Your task to perform on an android device: Do I have any events today? Image 0: 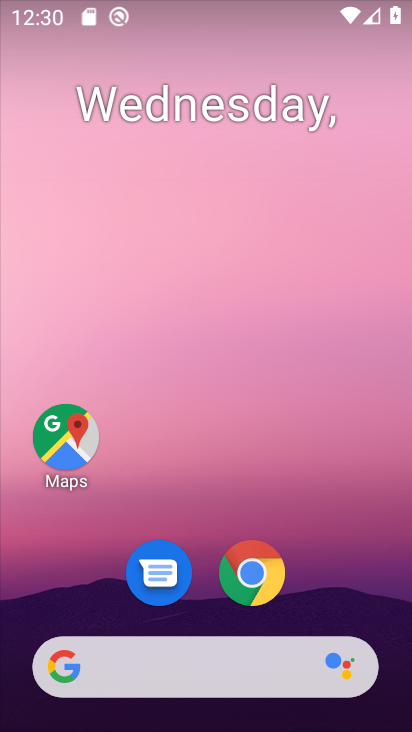
Step 0: drag from (205, 502) to (178, 20)
Your task to perform on an android device: Do I have any events today? Image 1: 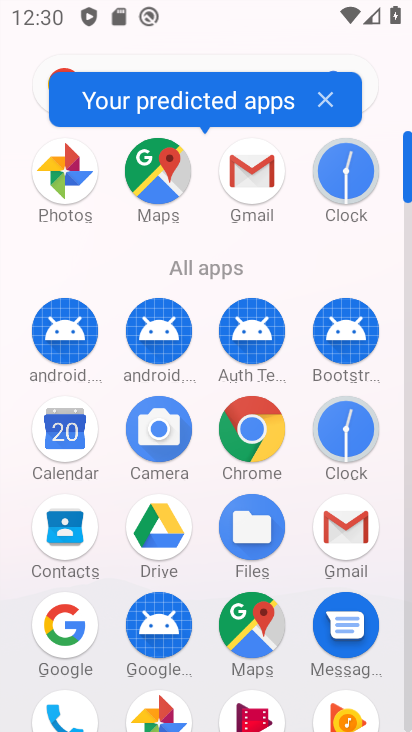
Step 1: drag from (294, 662) to (302, 286)
Your task to perform on an android device: Do I have any events today? Image 2: 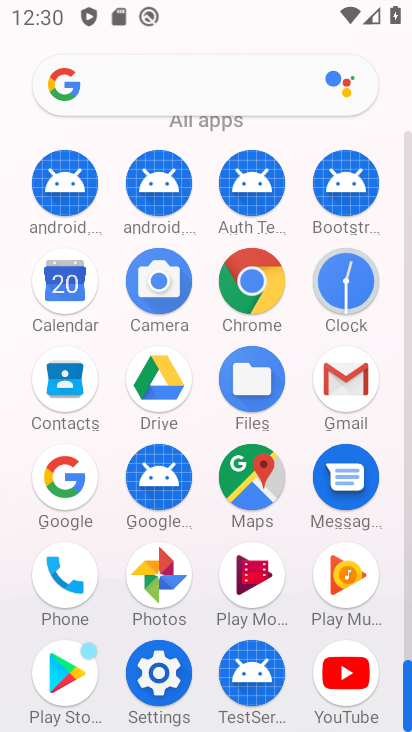
Step 2: click (73, 311)
Your task to perform on an android device: Do I have any events today? Image 3: 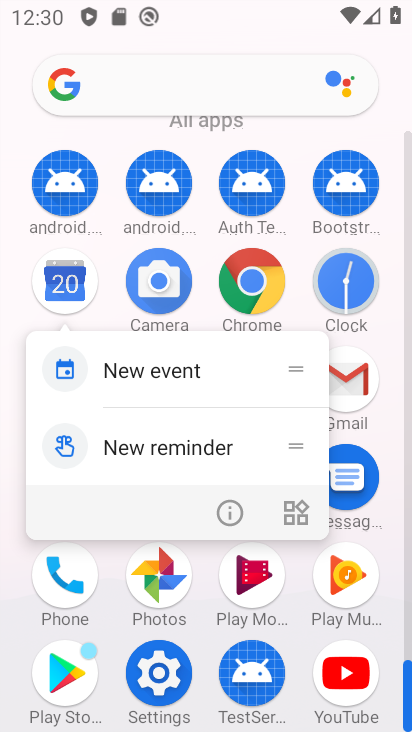
Step 3: click (72, 298)
Your task to perform on an android device: Do I have any events today? Image 4: 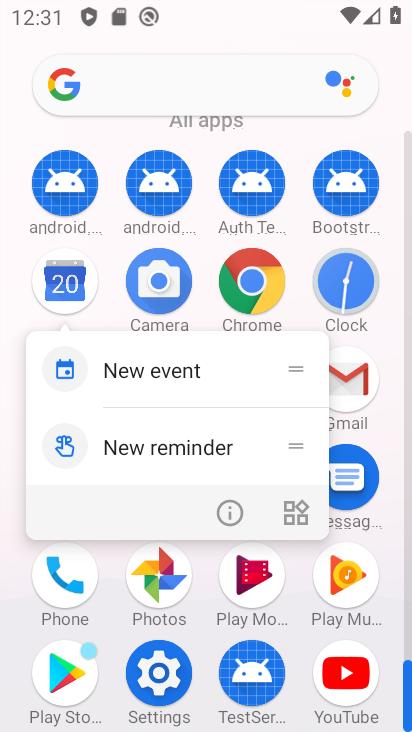
Step 4: click (72, 295)
Your task to perform on an android device: Do I have any events today? Image 5: 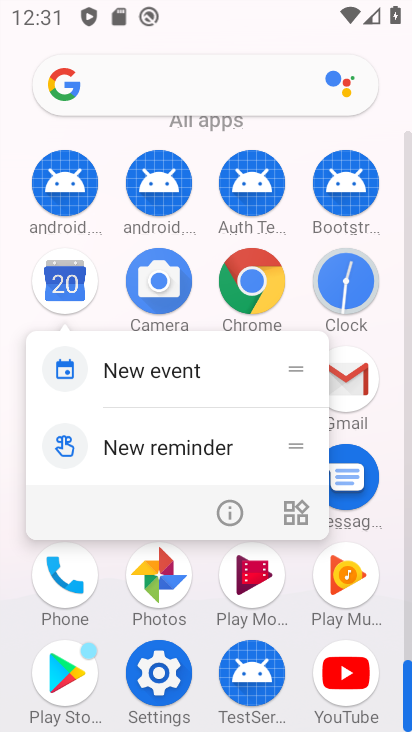
Step 5: click (72, 295)
Your task to perform on an android device: Do I have any events today? Image 6: 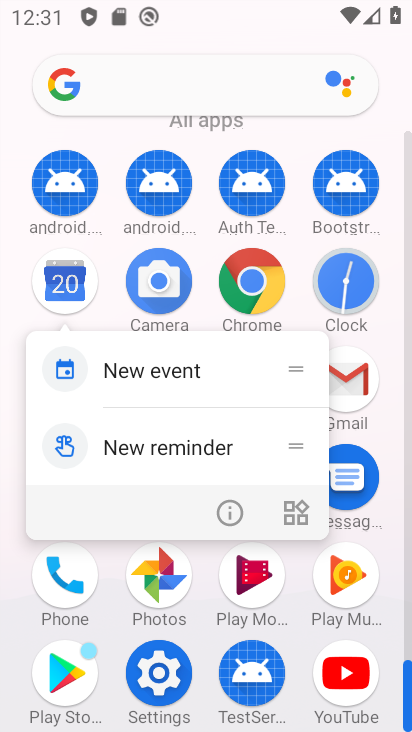
Step 6: click (72, 295)
Your task to perform on an android device: Do I have any events today? Image 7: 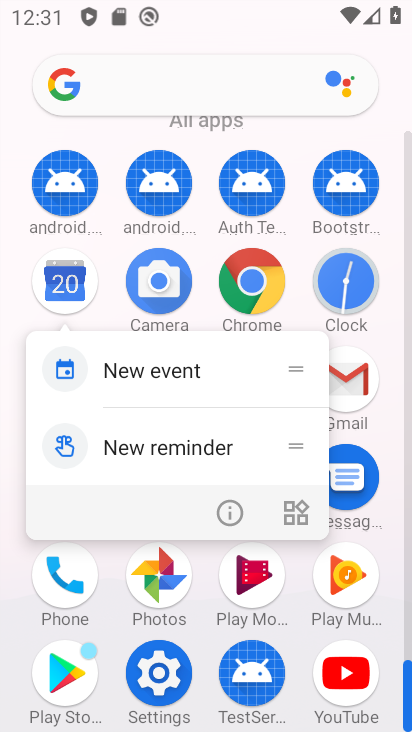
Step 7: click (72, 295)
Your task to perform on an android device: Do I have any events today? Image 8: 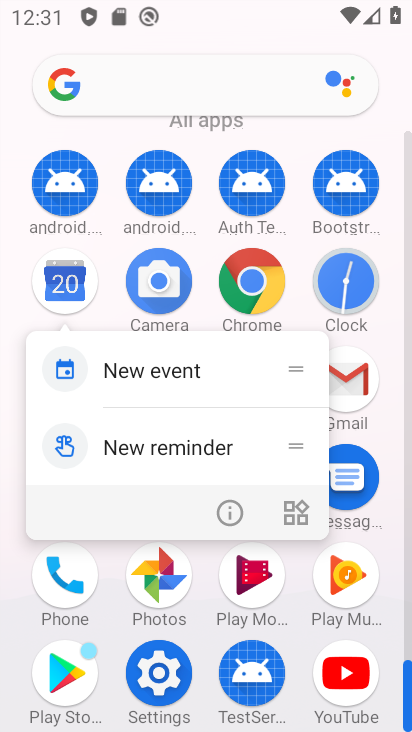
Step 8: click (71, 266)
Your task to perform on an android device: Do I have any events today? Image 9: 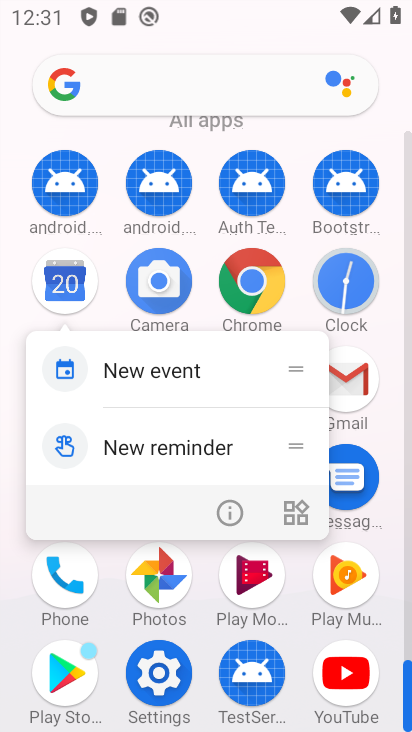
Step 9: click (66, 282)
Your task to perform on an android device: Do I have any events today? Image 10: 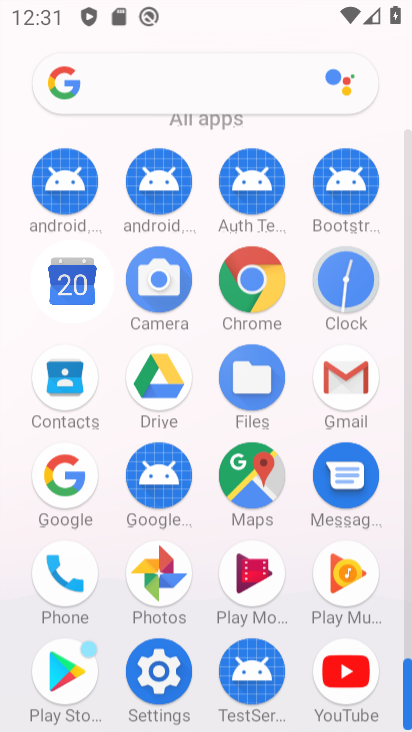
Step 10: click (62, 304)
Your task to perform on an android device: Do I have any events today? Image 11: 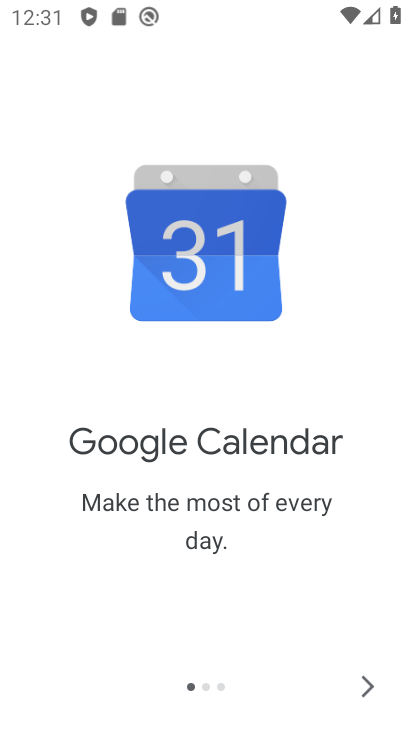
Step 11: click (380, 695)
Your task to perform on an android device: Do I have any events today? Image 12: 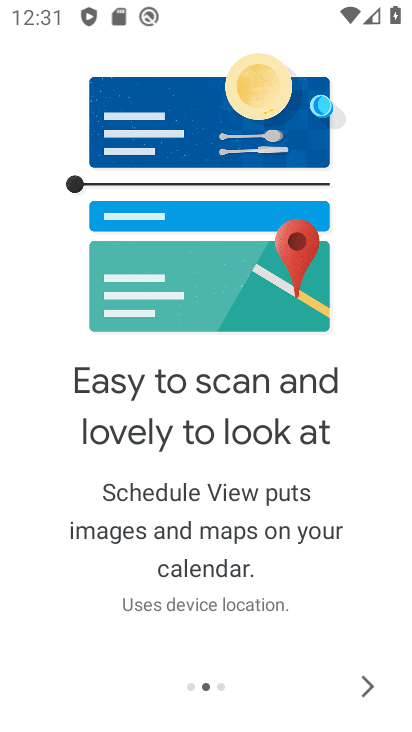
Step 12: click (374, 692)
Your task to perform on an android device: Do I have any events today? Image 13: 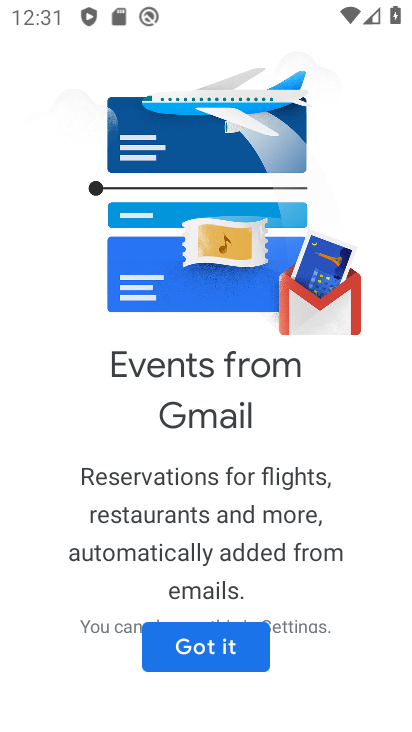
Step 13: click (374, 692)
Your task to perform on an android device: Do I have any events today? Image 14: 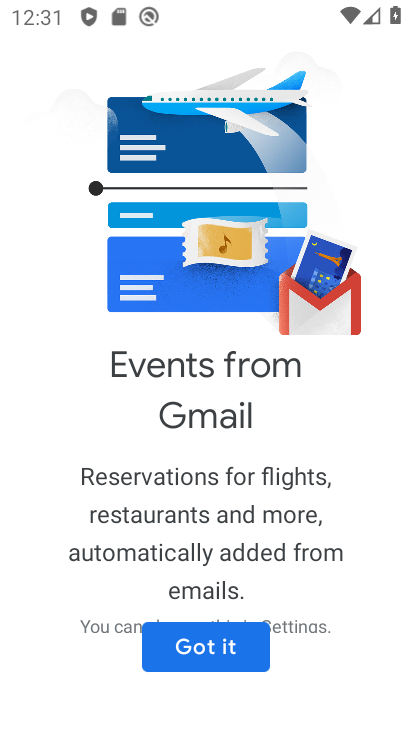
Step 14: click (226, 649)
Your task to perform on an android device: Do I have any events today? Image 15: 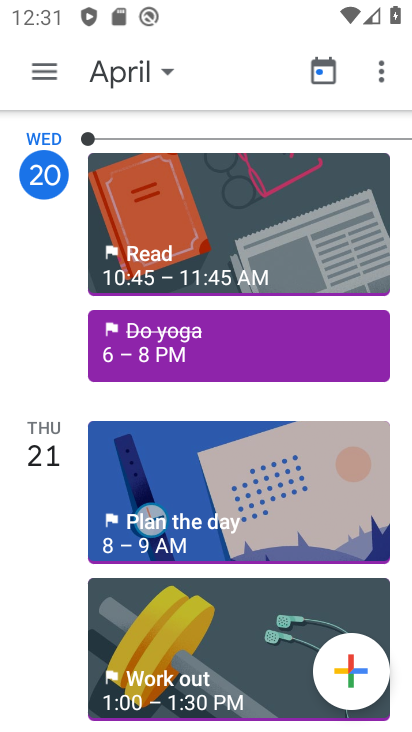
Step 15: click (167, 68)
Your task to perform on an android device: Do I have any events today? Image 16: 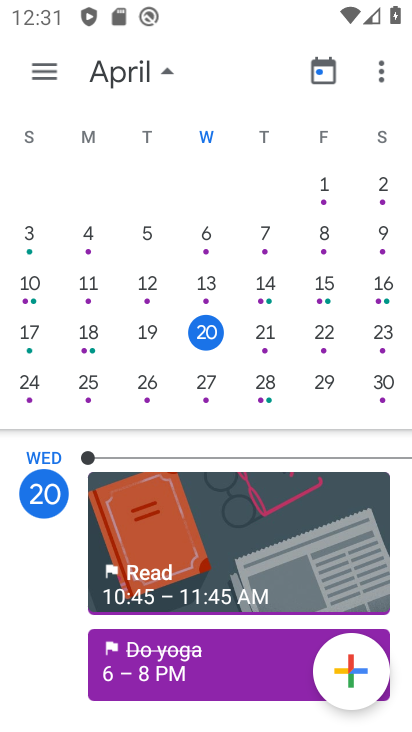
Step 16: click (209, 327)
Your task to perform on an android device: Do I have any events today? Image 17: 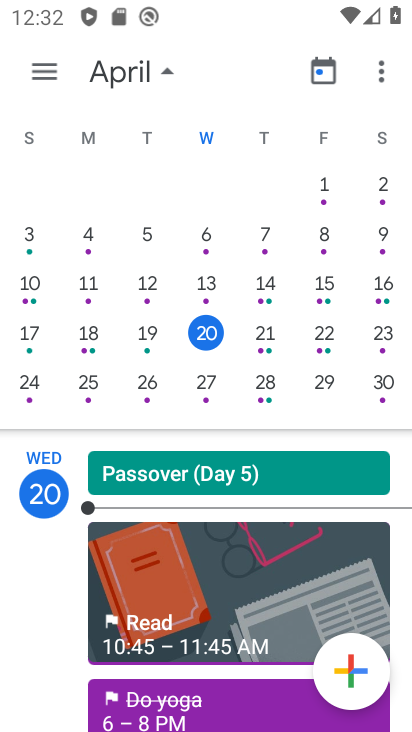
Step 17: task complete